Your task to perform on an android device: turn off smart reply in the gmail app Image 0: 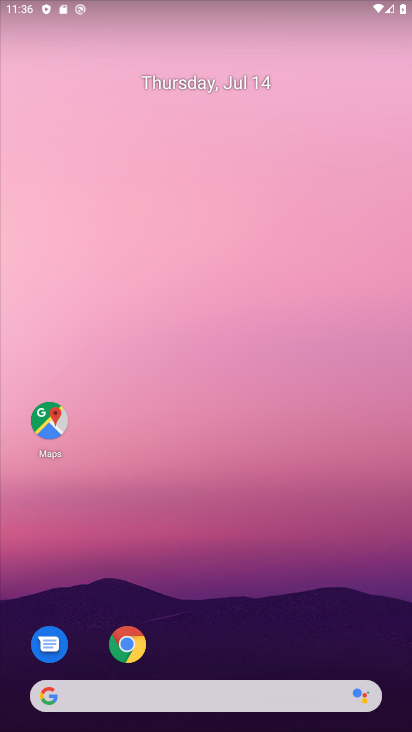
Step 0: drag from (357, 622) to (271, 68)
Your task to perform on an android device: turn off smart reply in the gmail app Image 1: 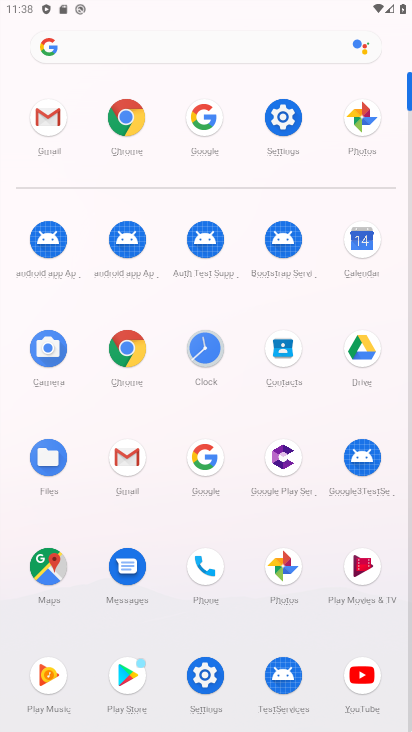
Step 1: click (147, 457)
Your task to perform on an android device: turn off smart reply in the gmail app Image 2: 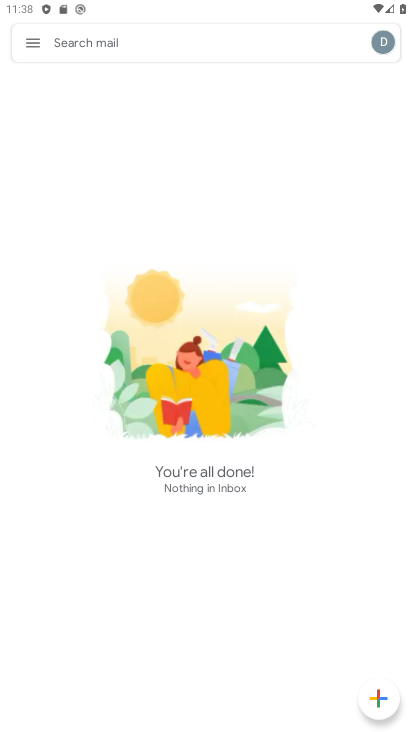
Step 2: click (37, 41)
Your task to perform on an android device: turn off smart reply in the gmail app Image 3: 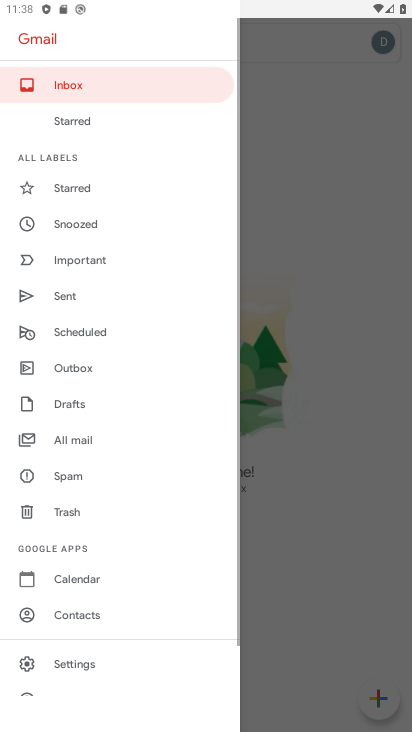
Step 3: click (85, 652)
Your task to perform on an android device: turn off smart reply in the gmail app Image 4: 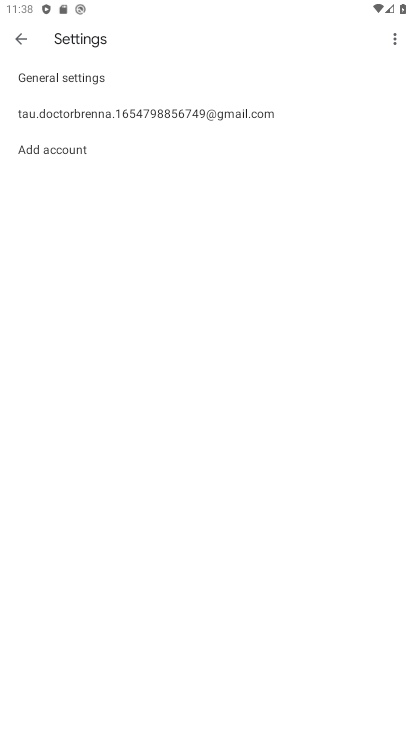
Step 4: click (182, 113)
Your task to perform on an android device: turn off smart reply in the gmail app Image 5: 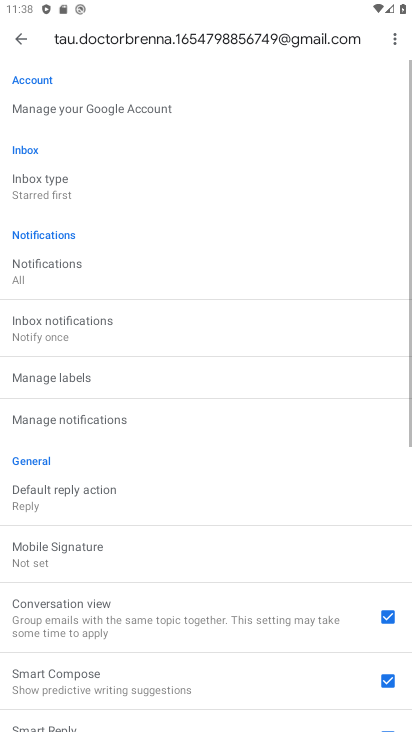
Step 5: drag from (190, 660) to (169, 155)
Your task to perform on an android device: turn off smart reply in the gmail app Image 6: 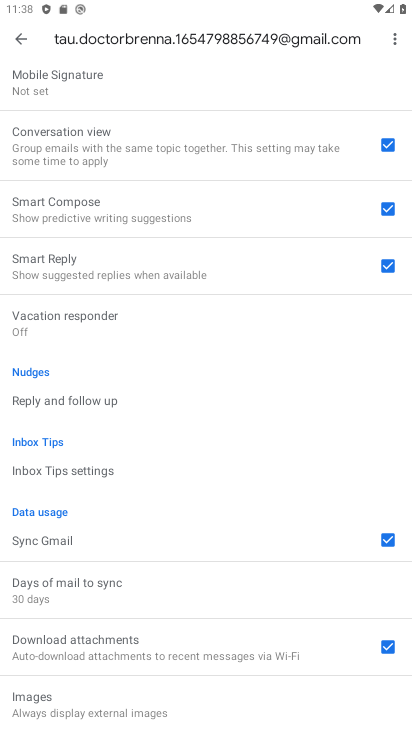
Step 6: click (160, 279)
Your task to perform on an android device: turn off smart reply in the gmail app Image 7: 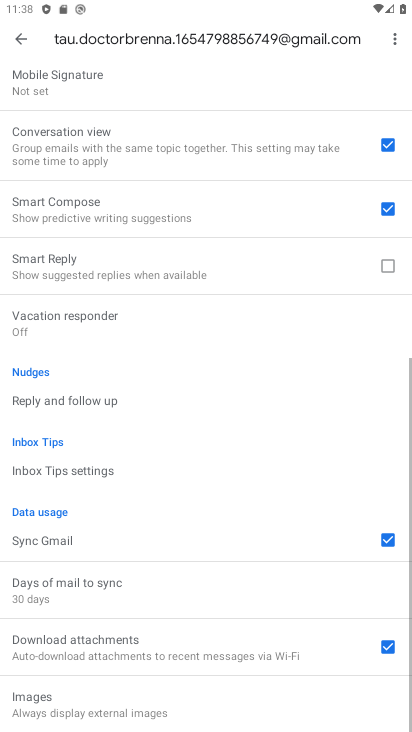
Step 7: task complete